Your task to perform on an android device: Open notification settings Image 0: 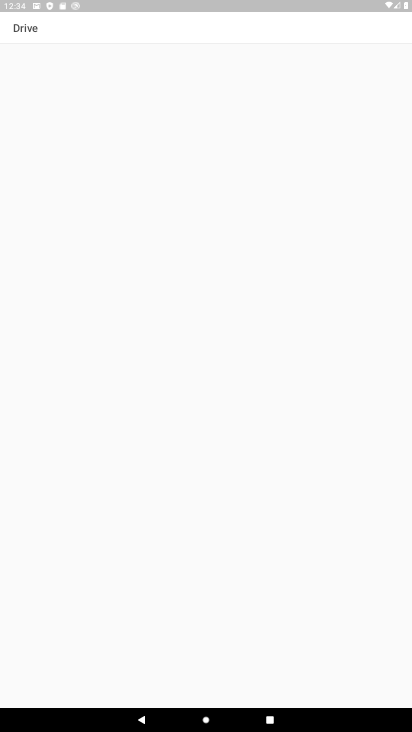
Step 0: press home button
Your task to perform on an android device: Open notification settings Image 1: 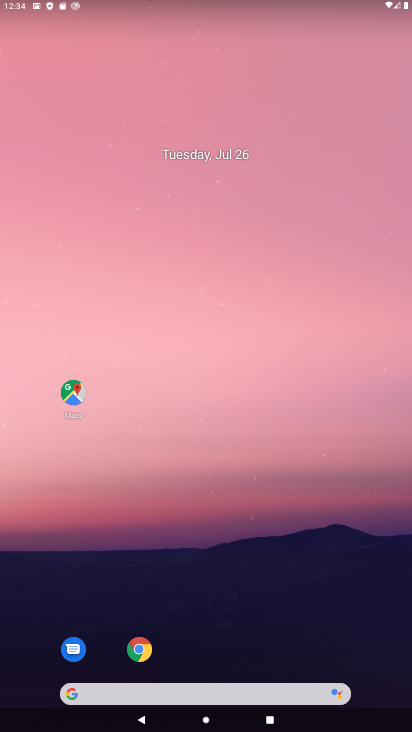
Step 1: drag from (311, 620) to (263, 206)
Your task to perform on an android device: Open notification settings Image 2: 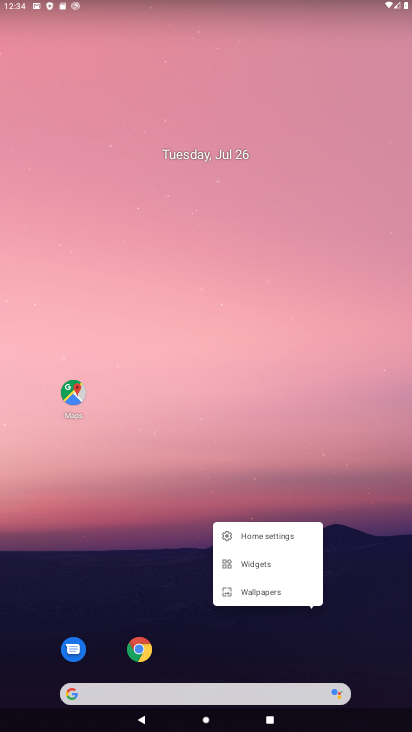
Step 2: drag from (398, 632) to (312, 157)
Your task to perform on an android device: Open notification settings Image 3: 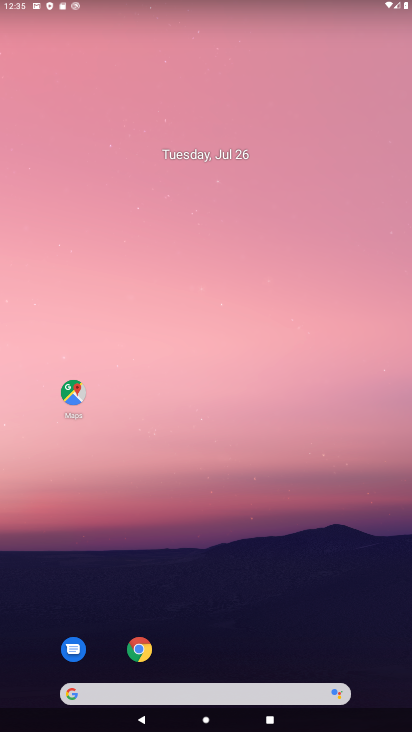
Step 3: drag from (277, 622) to (234, 87)
Your task to perform on an android device: Open notification settings Image 4: 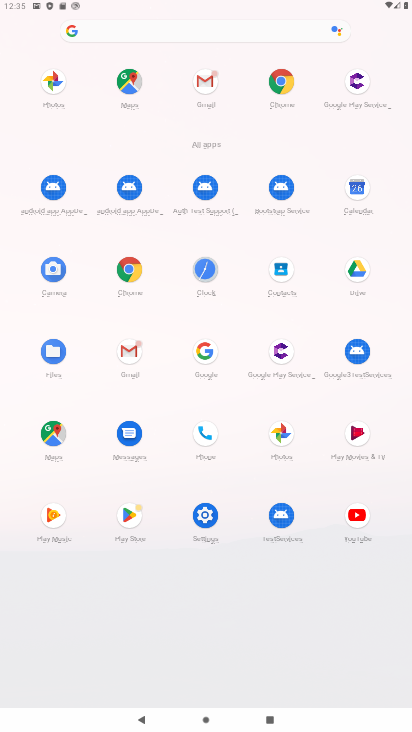
Step 4: click (208, 511)
Your task to perform on an android device: Open notification settings Image 5: 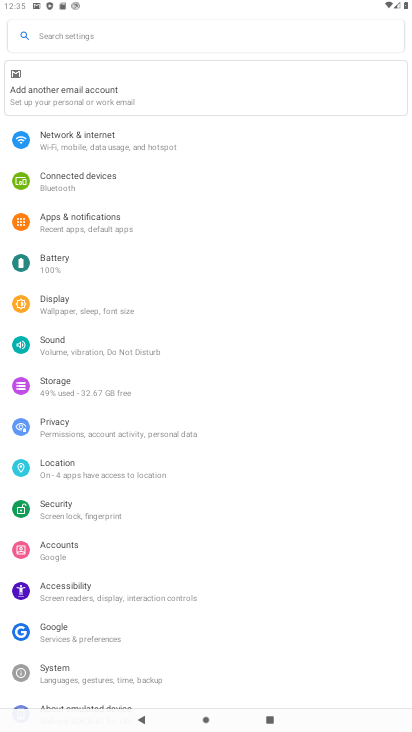
Step 5: click (141, 220)
Your task to perform on an android device: Open notification settings Image 6: 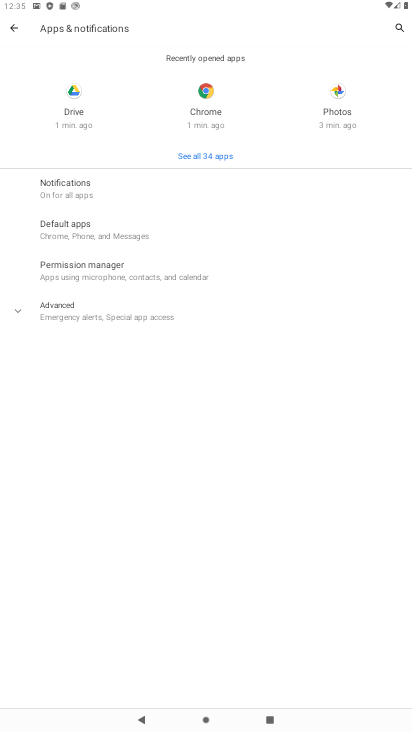
Step 6: click (84, 184)
Your task to perform on an android device: Open notification settings Image 7: 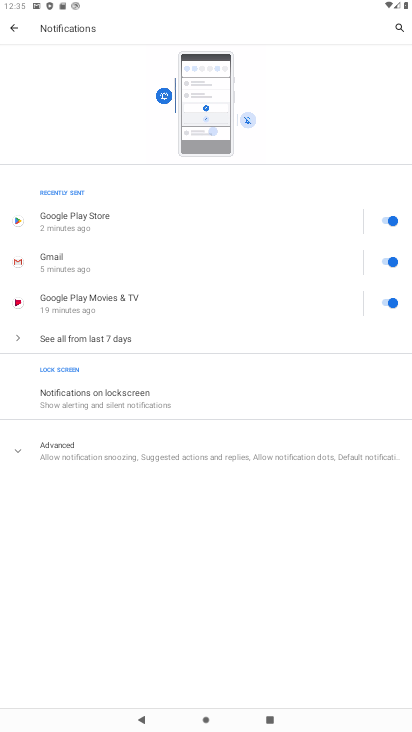
Step 7: task complete